Your task to perform on an android device: Find coffee shops on Maps Image 0: 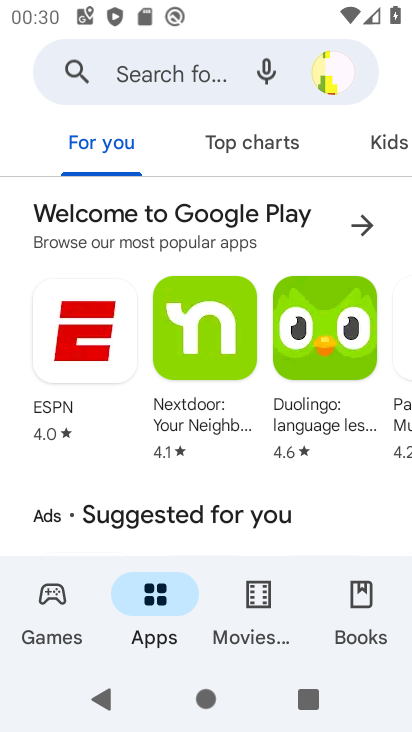
Step 0: press home button
Your task to perform on an android device: Find coffee shops on Maps Image 1: 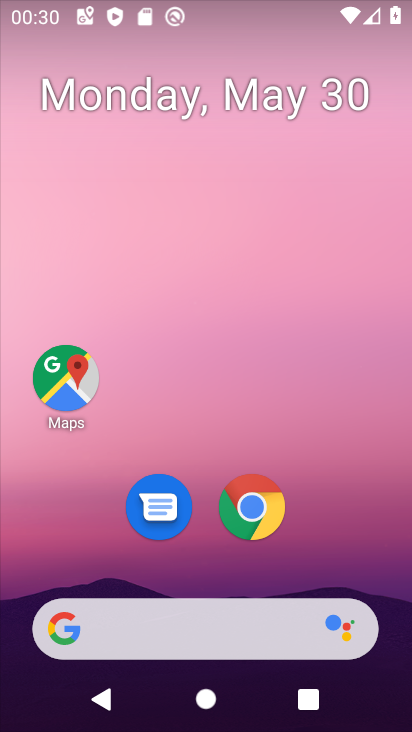
Step 1: click (53, 365)
Your task to perform on an android device: Find coffee shops on Maps Image 2: 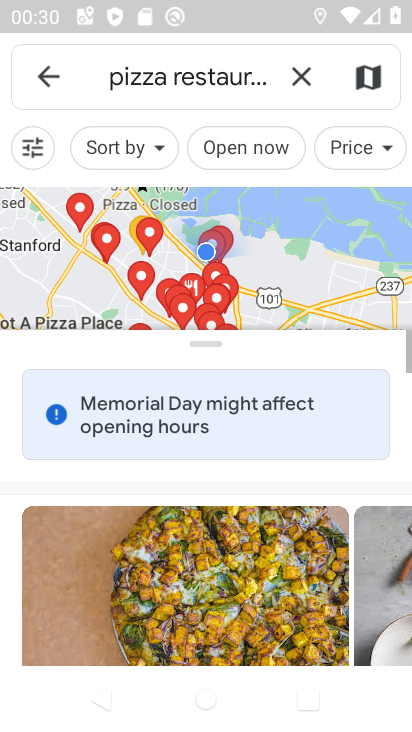
Step 2: click (308, 78)
Your task to perform on an android device: Find coffee shops on Maps Image 3: 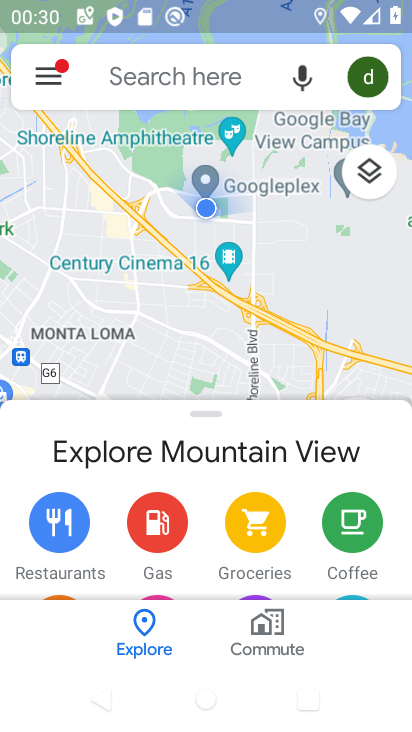
Step 3: click (218, 70)
Your task to perform on an android device: Find coffee shops on Maps Image 4: 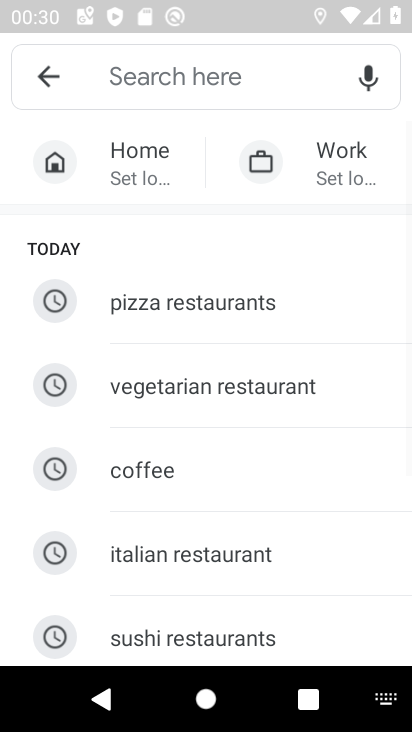
Step 4: click (211, 464)
Your task to perform on an android device: Find coffee shops on Maps Image 5: 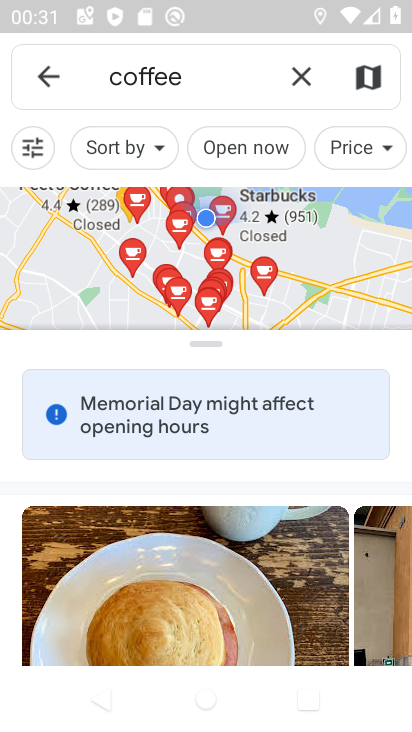
Step 5: task complete